Your task to perform on an android device: Go to accessibility settings Image 0: 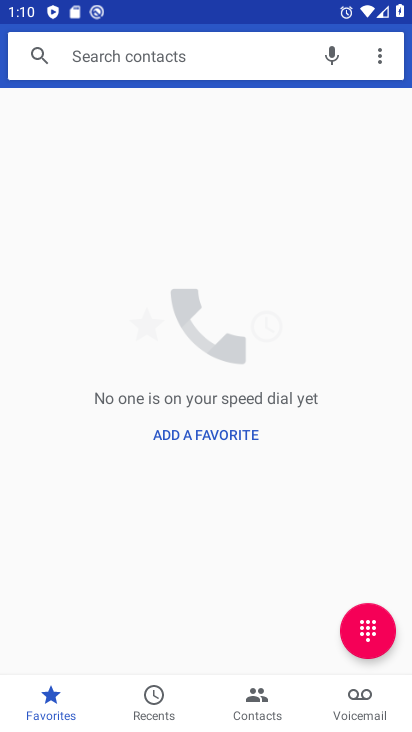
Step 0: press home button
Your task to perform on an android device: Go to accessibility settings Image 1: 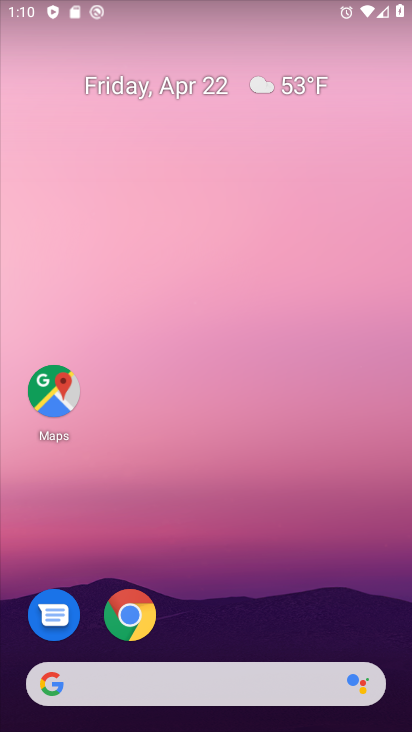
Step 1: drag from (323, 640) to (329, 15)
Your task to perform on an android device: Go to accessibility settings Image 2: 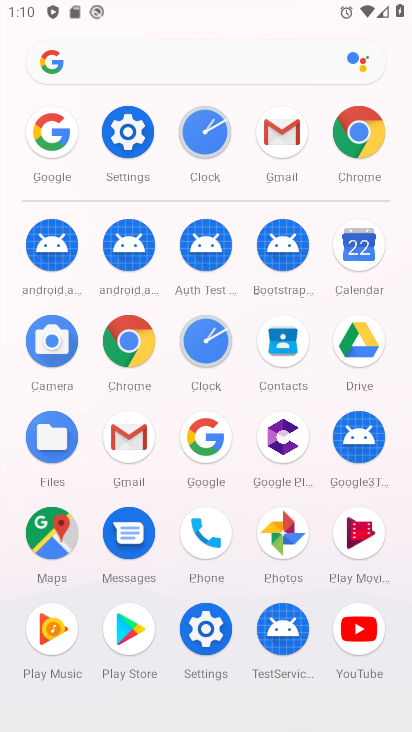
Step 2: click (127, 135)
Your task to perform on an android device: Go to accessibility settings Image 3: 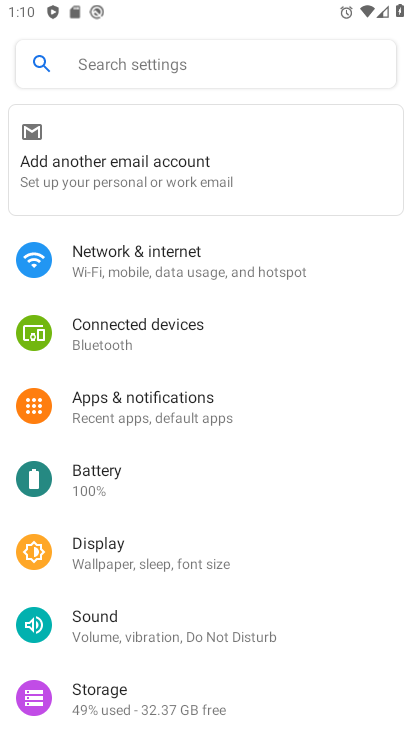
Step 3: drag from (361, 644) to (352, 249)
Your task to perform on an android device: Go to accessibility settings Image 4: 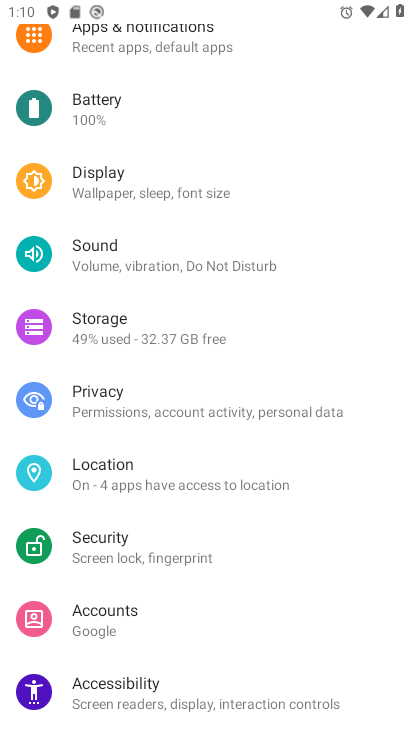
Step 4: drag from (343, 591) to (341, 248)
Your task to perform on an android device: Go to accessibility settings Image 5: 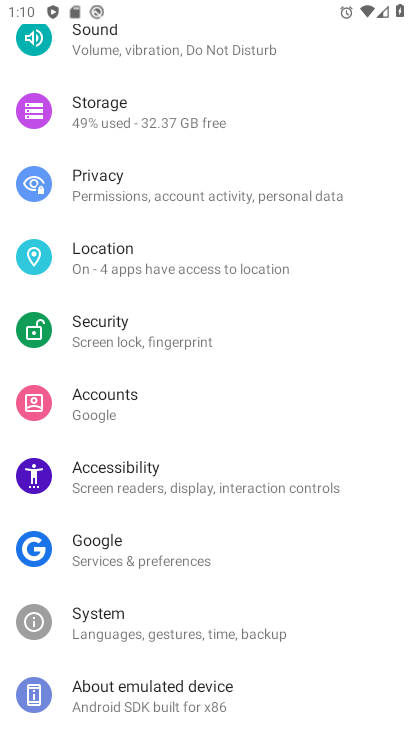
Step 5: click (95, 486)
Your task to perform on an android device: Go to accessibility settings Image 6: 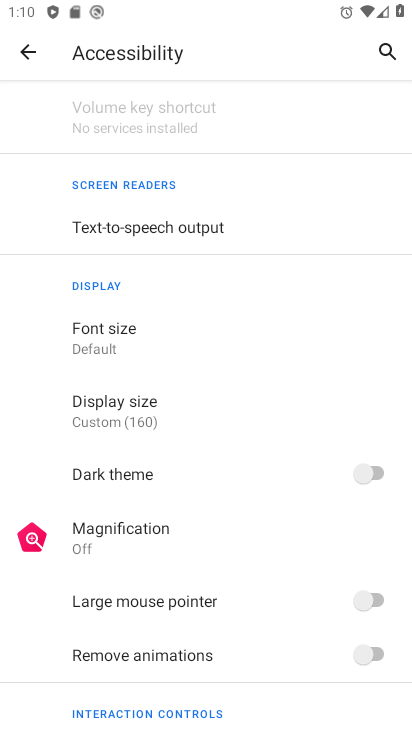
Step 6: task complete